Your task to perform on an android device: see tabs open on other devices in the chrome app Image 0: 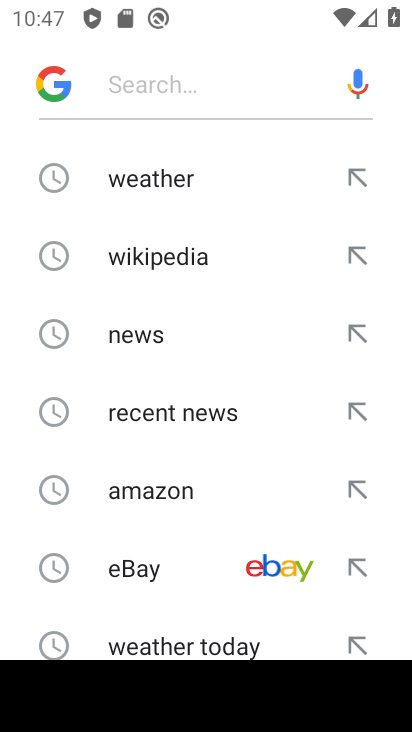
Step 0: press home button
Your task to perform on an android device: see tabs open on other devices in the chrome app Image 1: 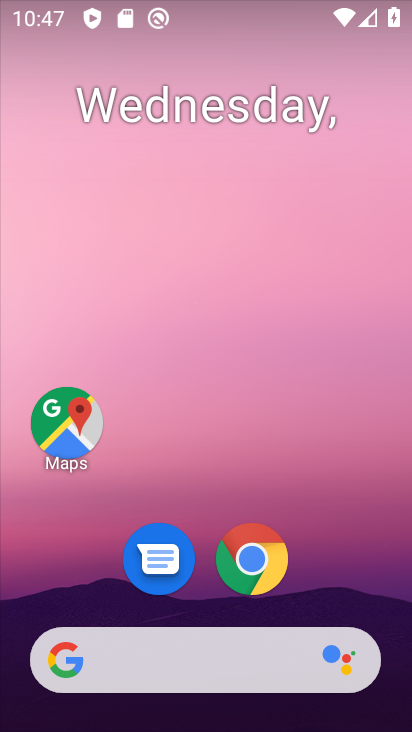
Step 1: click (245, 555)
Your task to perform on an android device: see tabs open on other devices in the chrome app Image 2: 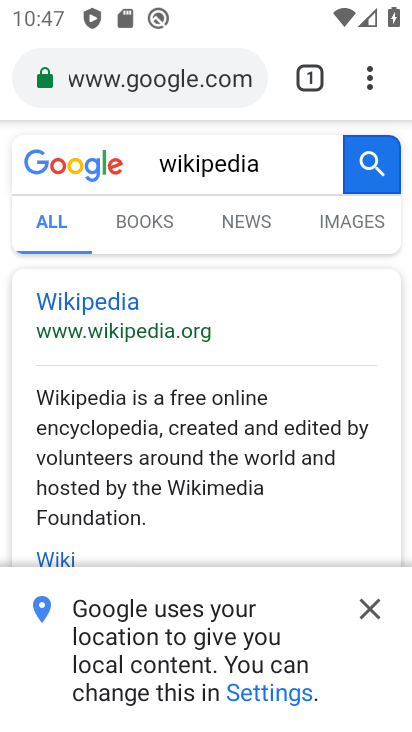
Step 2: click (314, 84)
Your task to perform on an android device: see tabs open on other devices in the chrome app Image 3: 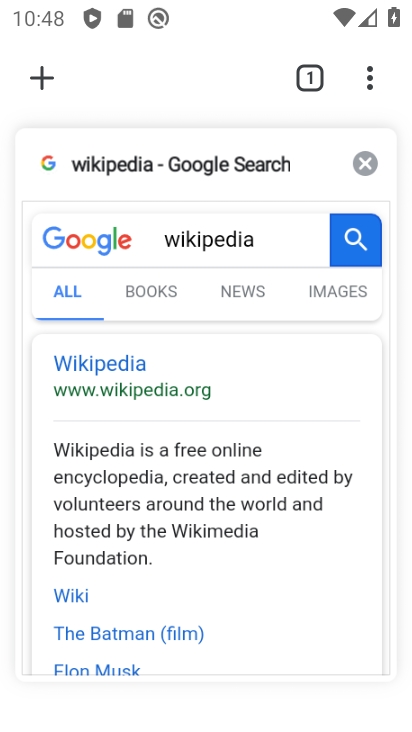
Step 3: task complete